Your task to perform on an android device: open a new tab in the chrome app Image 0: 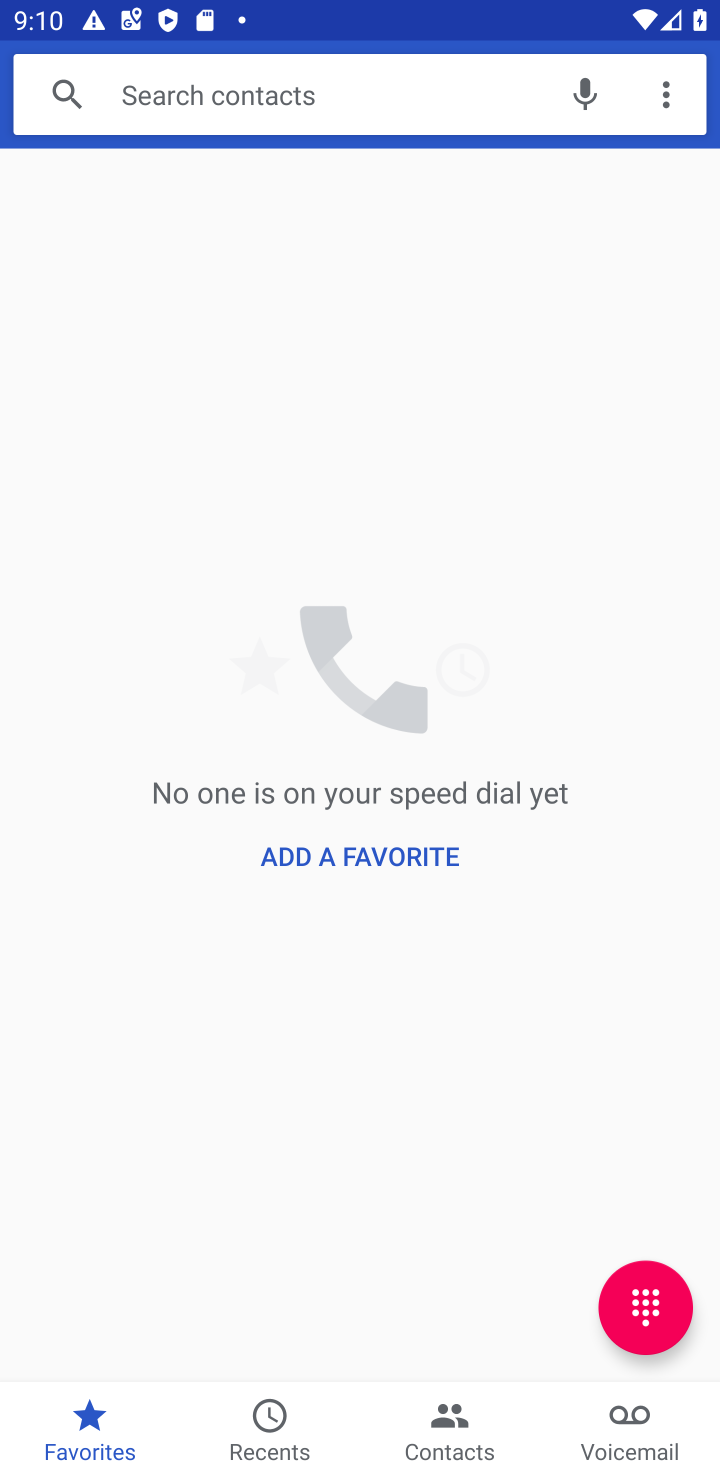
Step 0: press home button
Your task to perform on an android device: open a new tab in the chrome app Image 1: 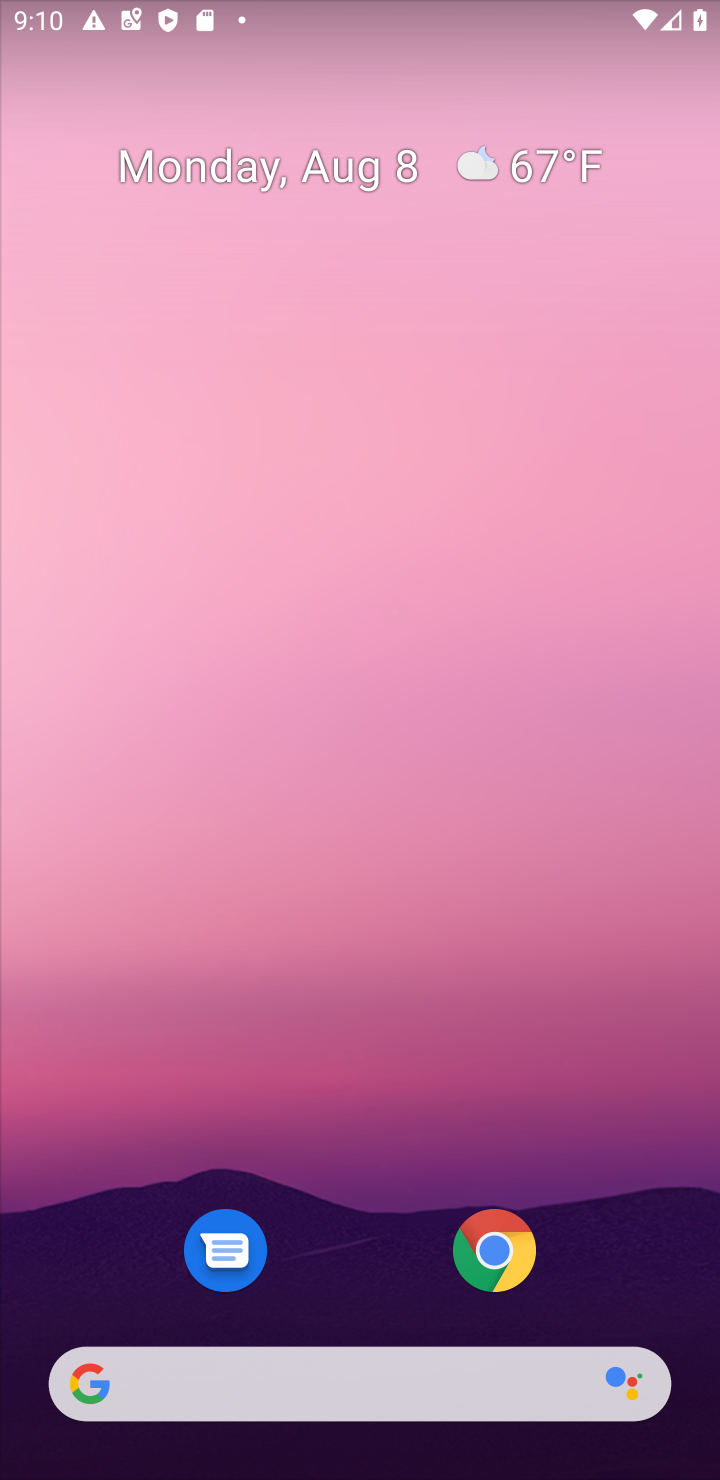
Step 1: click (498, 1254)
Your task to perform on an android device: open a new tab in the chrome app Image 2: 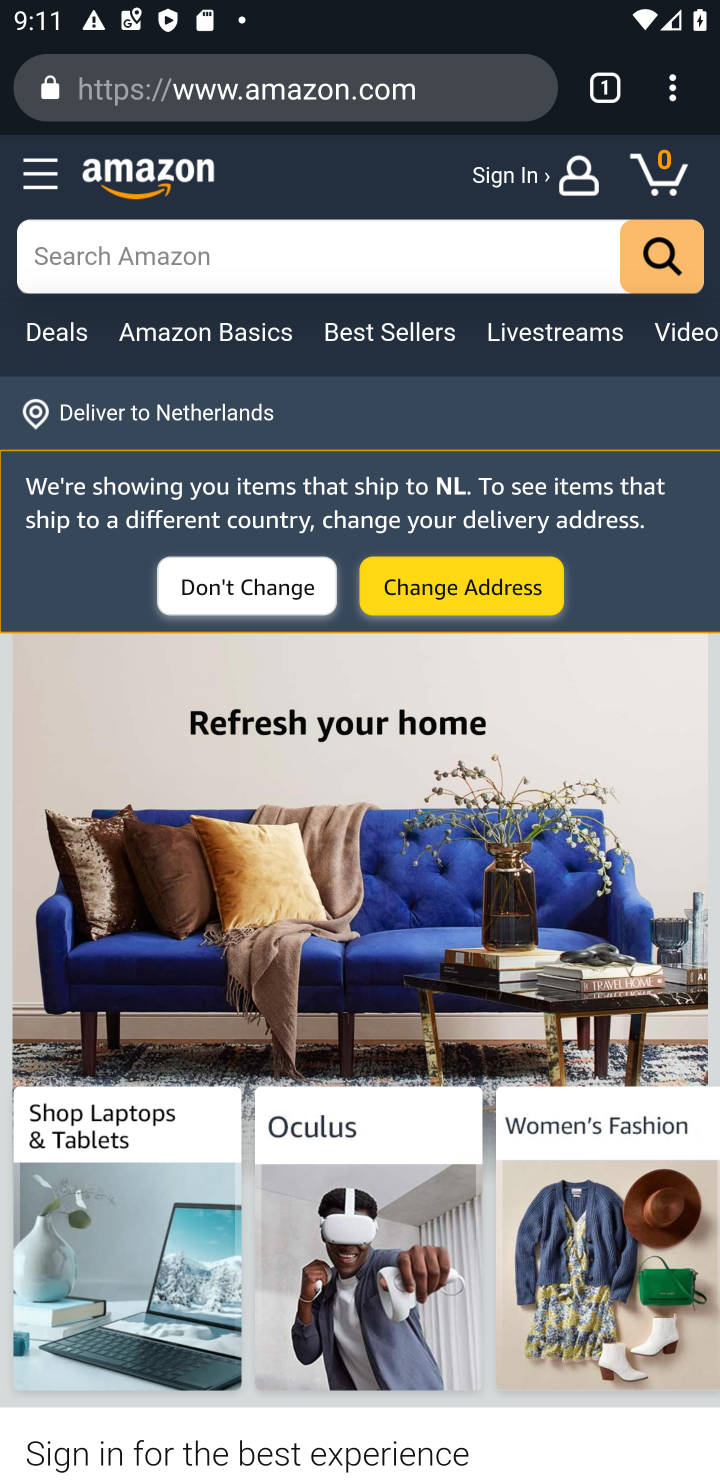
Step 2: click (606, 95)
Your task to perform on an android device: open a new tab in the chrome app Image 3: 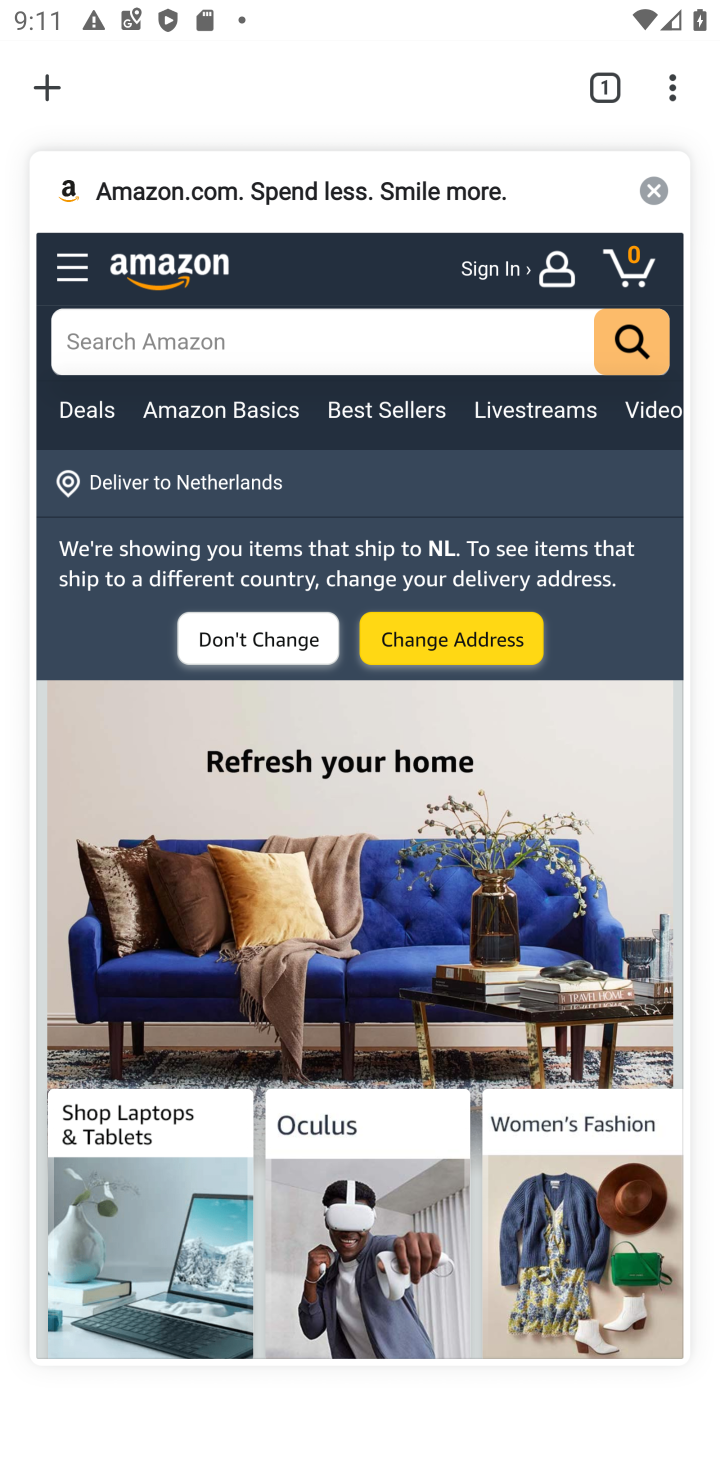
Step 3: click (52, 96)
Your task to perform on an android device: open a new tab in the chrome app Image 4: 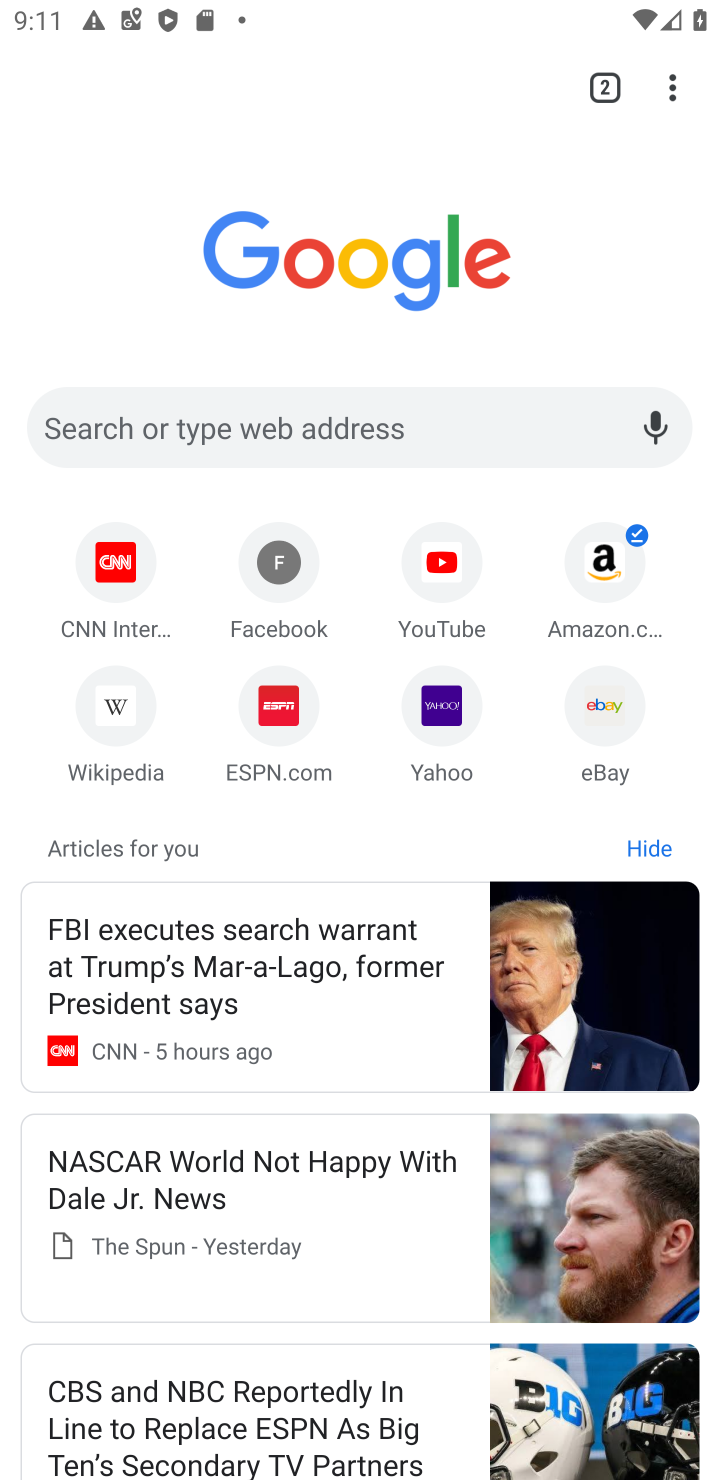
Step 4: task complete